Your task to perform on an android device: What's the weather? Image 0: 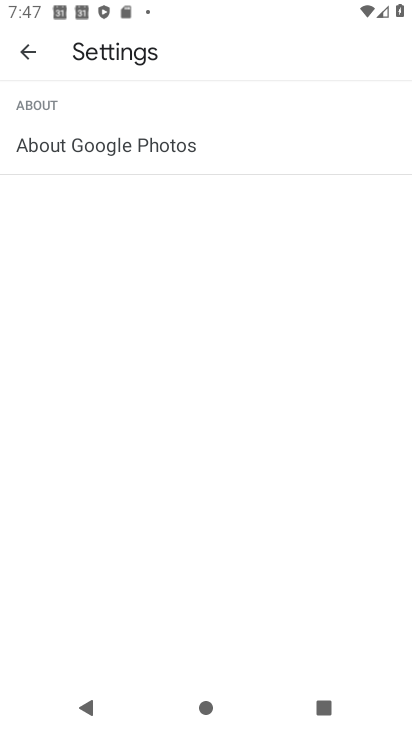
Step 0: press home button
Your task to perform on an android device: What's the weather? Image 1: 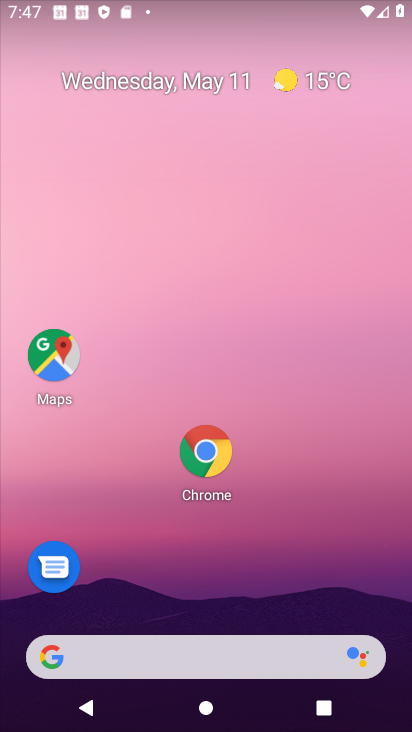
Step 1: click (337, 79)
Your task to perform on an android device: What's the weather? Image 2: 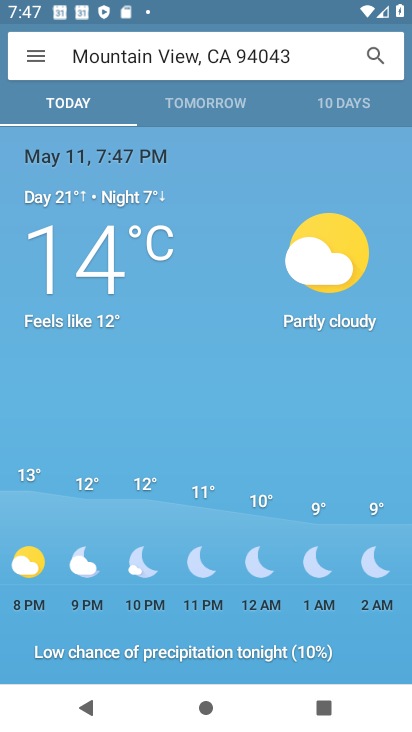
Step 2: task complete